Your task to perform on an android device: turn off notifications settings in the gmail app Image 0: 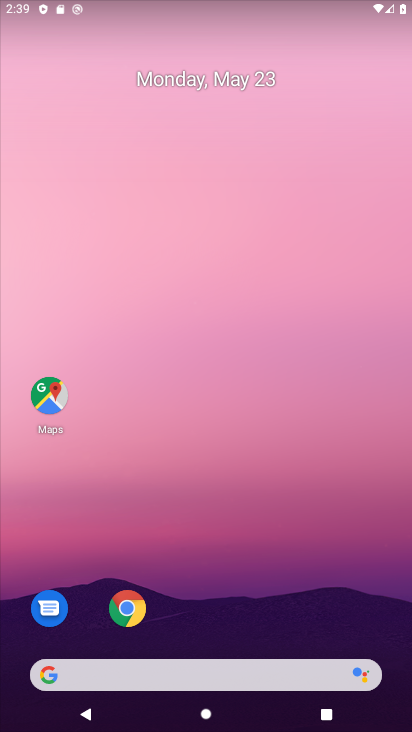
Step 0: drag from (213, 488) to (253, 191)
Your task to perform on an android device: turn off notifications settings in the gmail app Image 1: 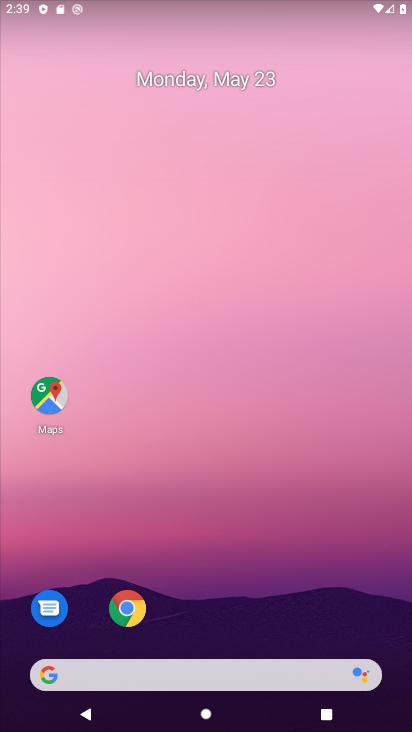
Step 1: drag from (252, 486) to (313, 115)
Your task to perform on an android device: turn off notifications settings in the gmail app Image 2: 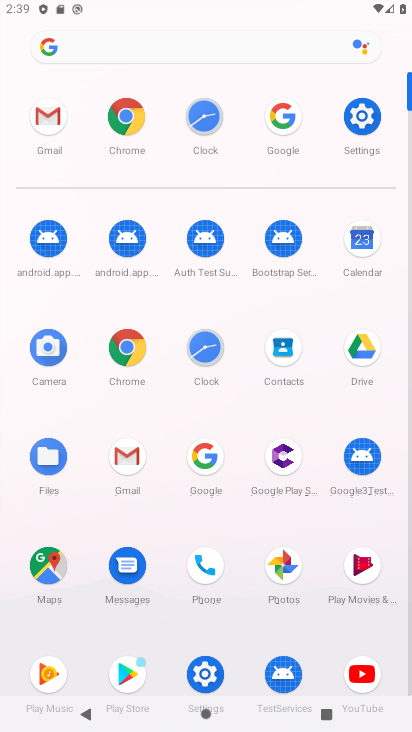
Step 2: click (127, 446)
Your task to perform on an android device: turn off notifications settings in the gmail app Image 3: 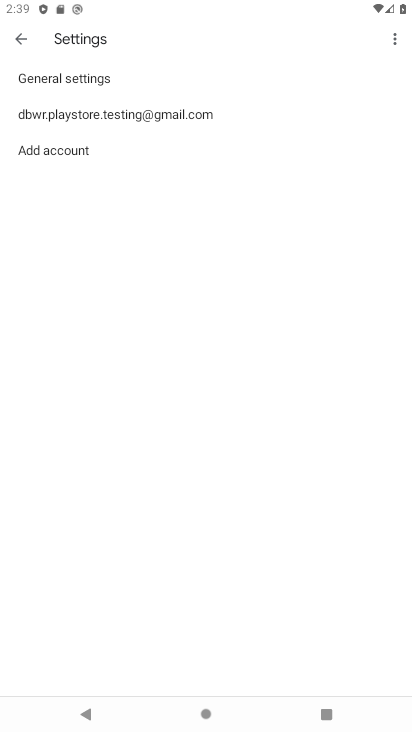
Step 3: click (180, 106)
Your task to perform on an android device: turn off notifications settings in the gmail app Image 4: 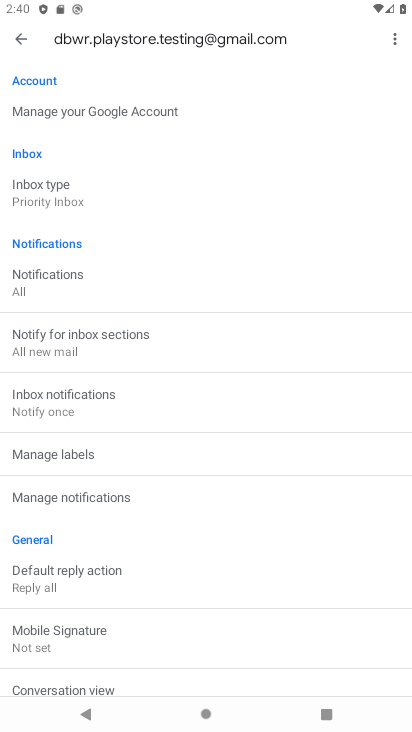
Step 4: click (91, 282)
Your task to perform on an android device: turn off notifications settings in the gmail app Image 5: 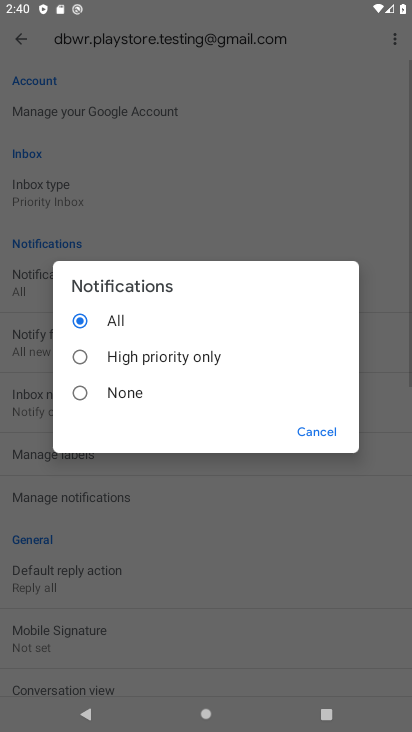
Step 5: click (106, 394)
Your task to perform on an android device: turn off notifications settings in the gmail app Image 6: 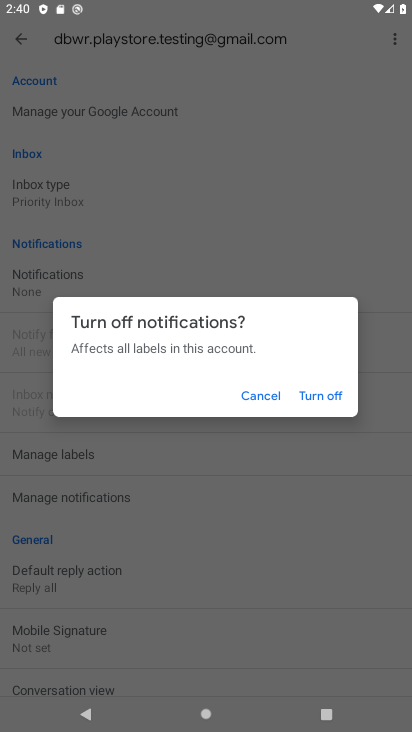
Step 6: click (326, 395)
Your task to perform on an android device: turn off notifications settings in the gmail app Image 7: 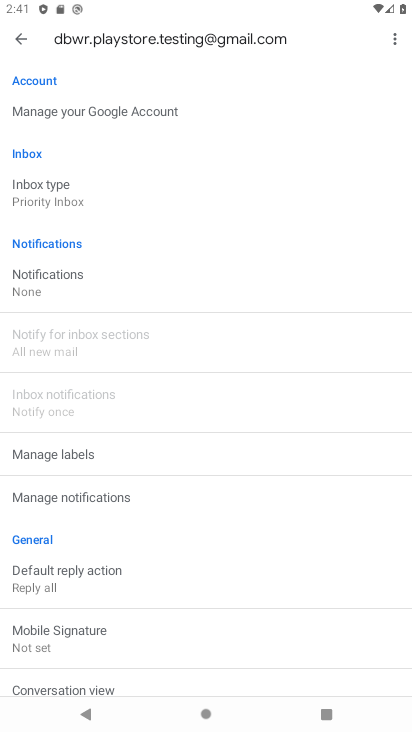
Step 7: task complete